Your task to perform on an android device: Show me the alarms in the clock app Image 0: 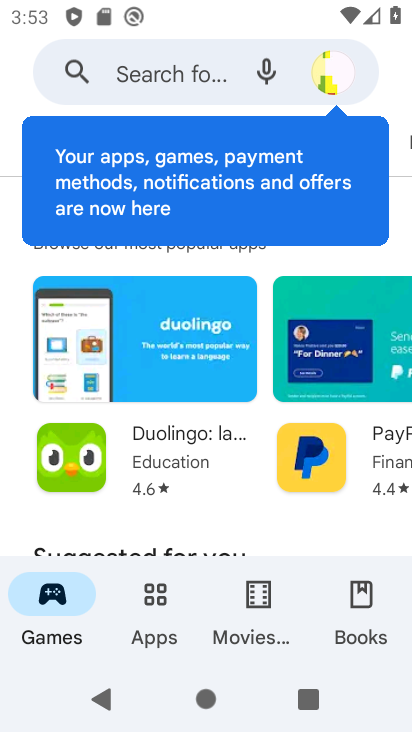
Step 0: press home button
Your task to perform on an android device: Show me the alarms in the clock app Image 1: 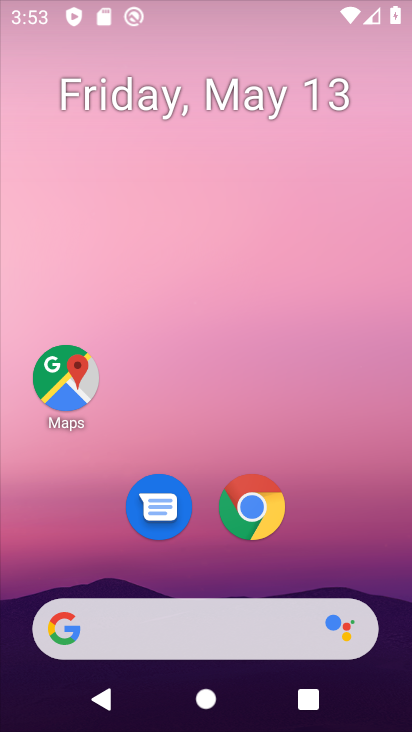
Step 1: drag from (319, 463) to (322, 74)
Your task to perform on an android device: Show me the alarms in the clock app Image 2: 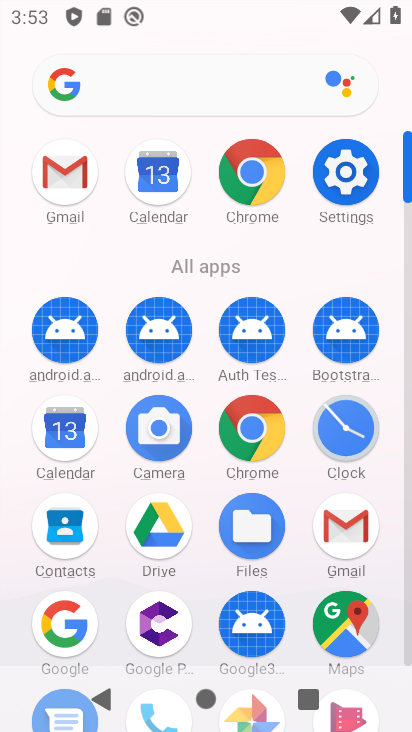
Step 2: click (338, 425)
Your task to perform on an android device: Show me the alarms in the clock app Image 3: 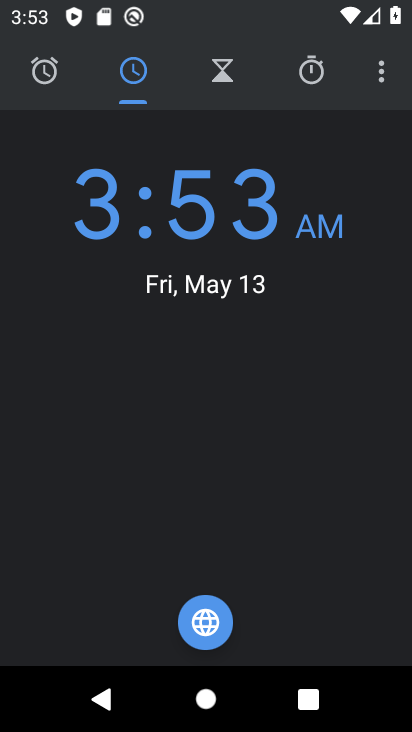
Step 3: click (50, 74)
Your task to perform on an android device: Show me the alarms in the clock app Image 4: 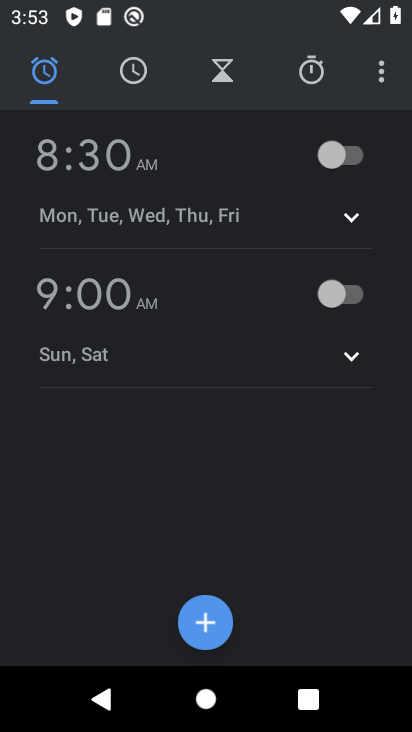
Step 4: task complete